Your task to perform on an android device: Open maps Image 0: 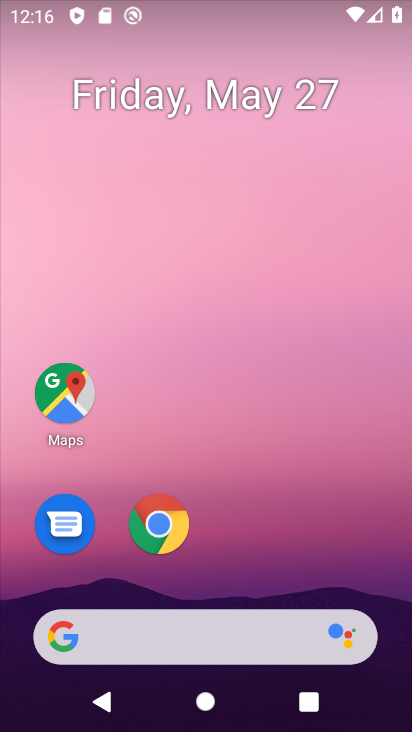
Step 0: click (65, 395)
Your task to perform on an android device: Open maps Image 1: 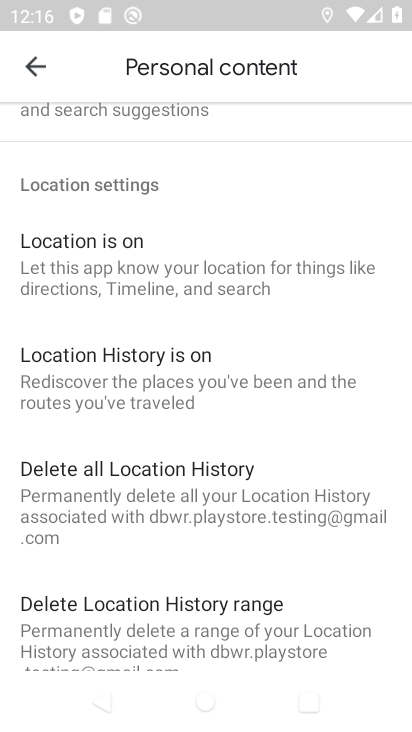
Step 1: click (33, 60)
Your task to perform on an android device: Open maps Image 2: 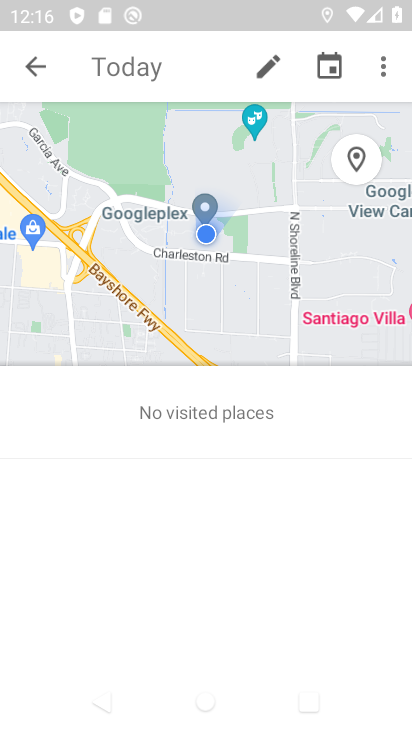
Step 2: click (33, 60)
Your task to perform on an android device: Open maps Image 3: 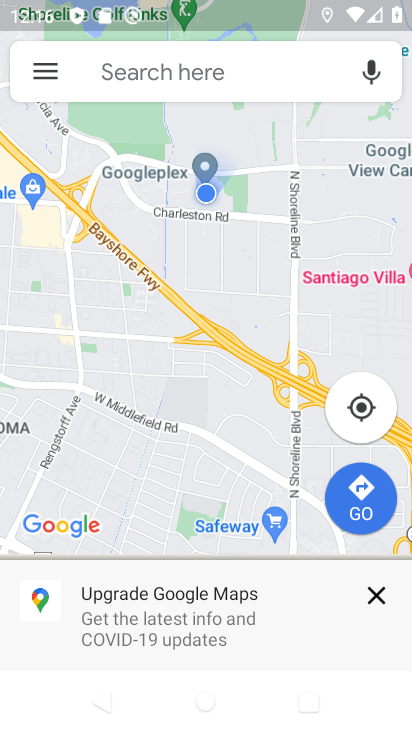
Step 3: task complete